Your task to perform on an android device: remove spam from my inbox in the gmail app Image 0: 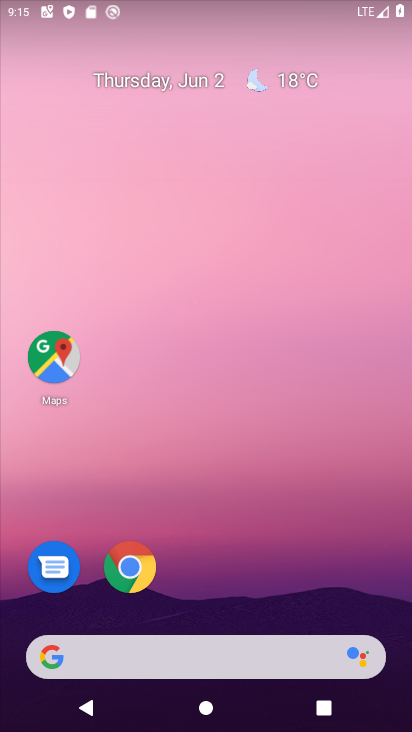
Step 0: press home button
Your task to perform on an android device: remove spam from my inbox in the gmail app Image 1: 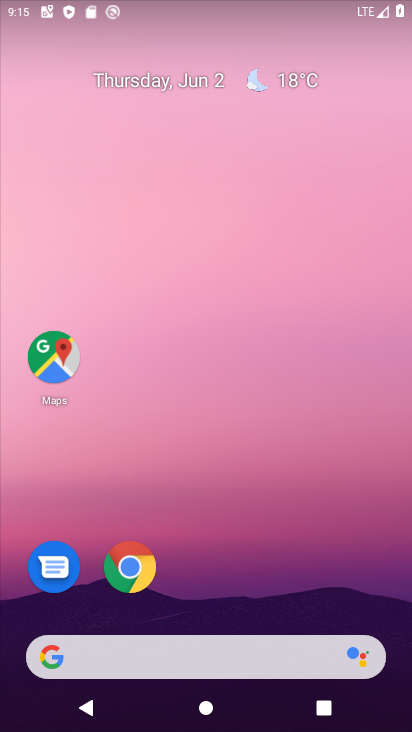
Step 1: drag from (217, 610) to (217, 29)
Your task to perform on an android device: remove spam from my inbox in the gmail app Image 2: 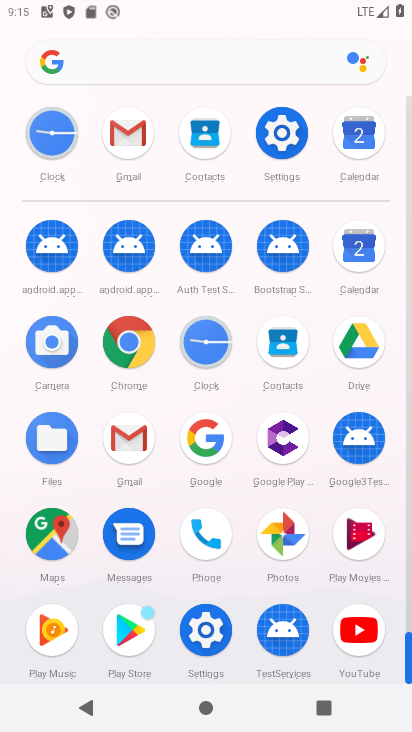
Step 2: click (127, 427)
Your task to perform on an android device: remove spam from my inbox in the gmail app Image 3: 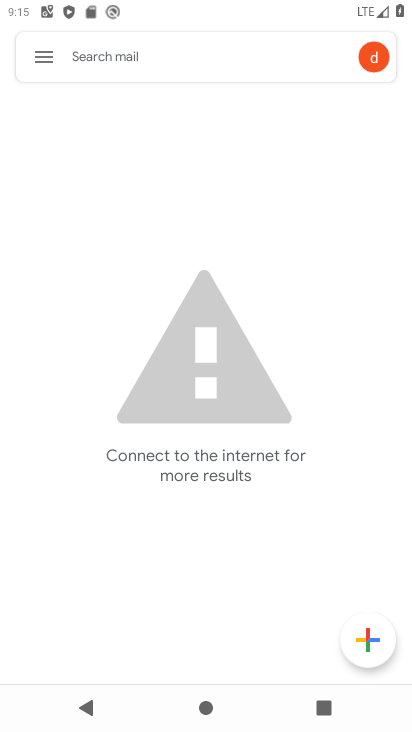
Step 3: click (35, 49)
Your task to perform on an android device: remove spam from my inbox in the gmail app Image 4: 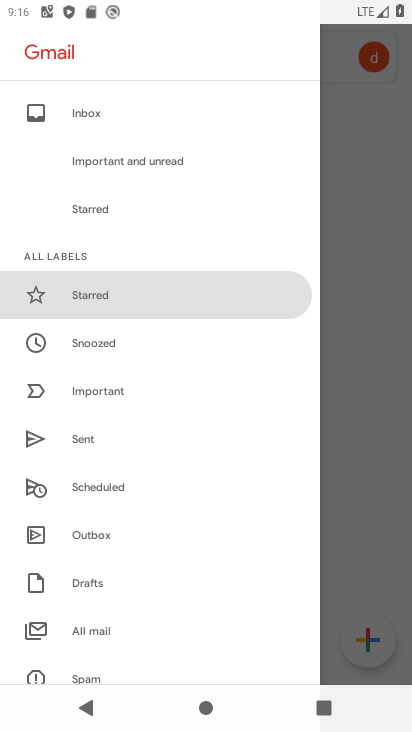
Step 4: drag from (112, 653) to (112, 400)
Your task to perform on an android device: remove spam from my inbox in the gmail app Image 5: 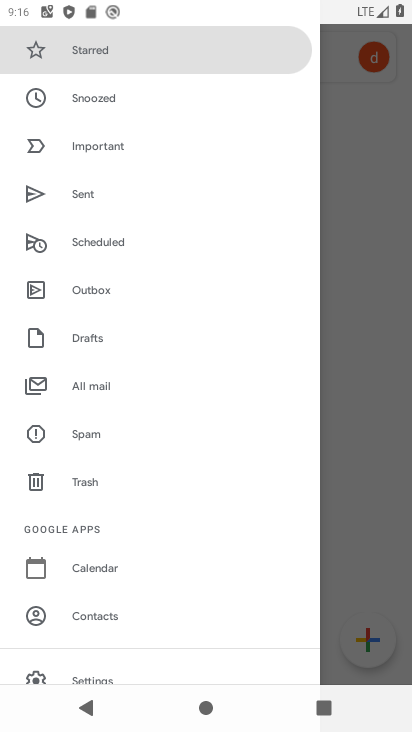
Step 5: click (118, 430)
Your task to perform on an android device: remove spam from my inbox in the gmail app Image 6: 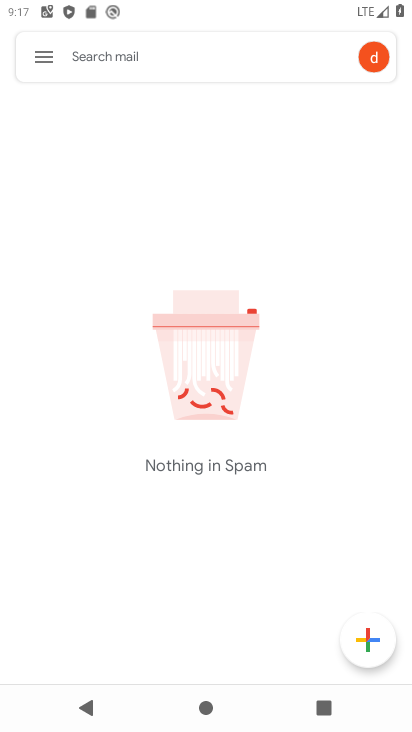
Step 6: task complete